Your task to perform on an android device: Search for pizza restaurants on Maps Image 0: 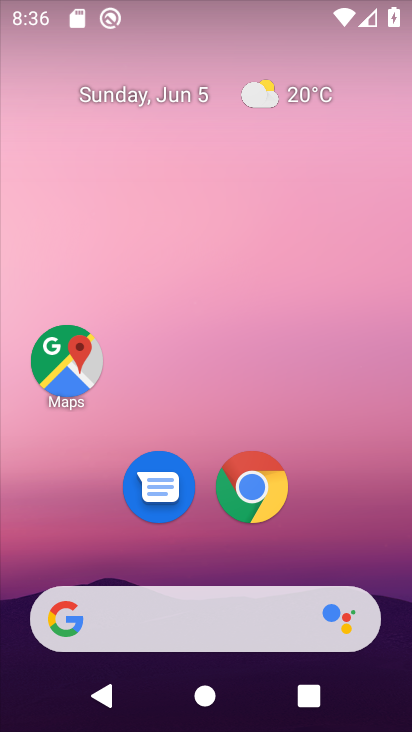
Step 0: drag from (362, 273) to (368, 210)
Your task to perform on an android device: Search for pizza restaurants on Maps Image 1: 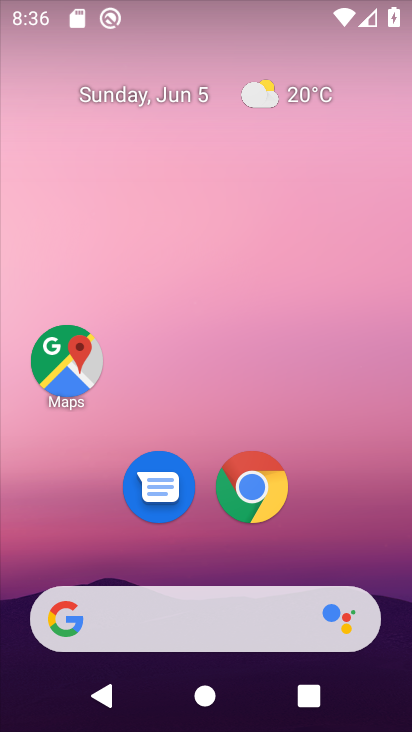
Step 1: click (36, 353)
Your task to perform on an android device: Search for pizza restaurants on Maps Image 2: 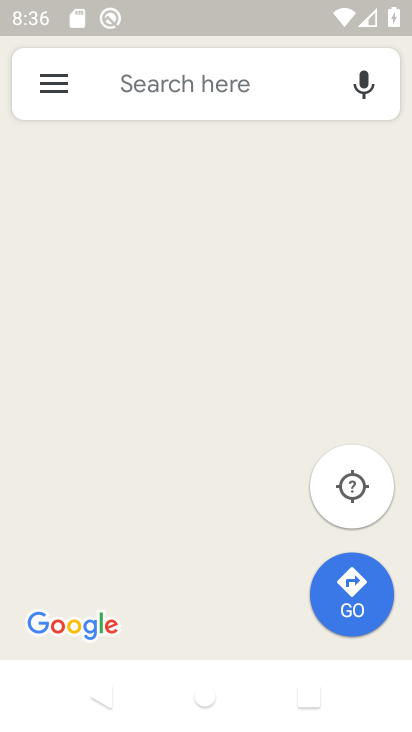
Step 2: click (215, 82)
Your task to perform on an android device: Search for pizza restaurants on Maps Image 3: 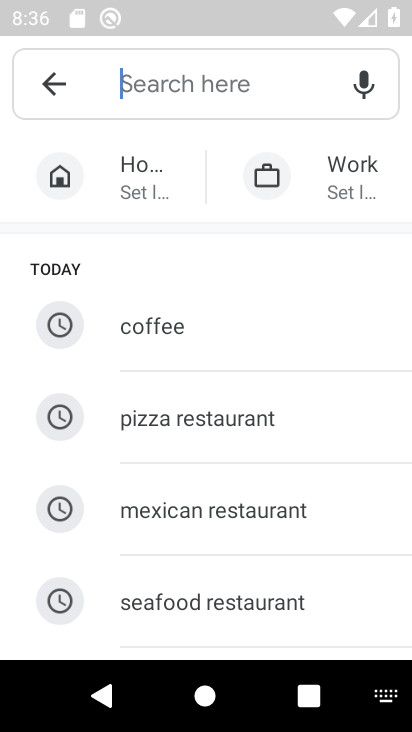
Step 3: click (201, 398)
Your task to perform on an android device: Search for pizza restaurants on Maps Image 4: 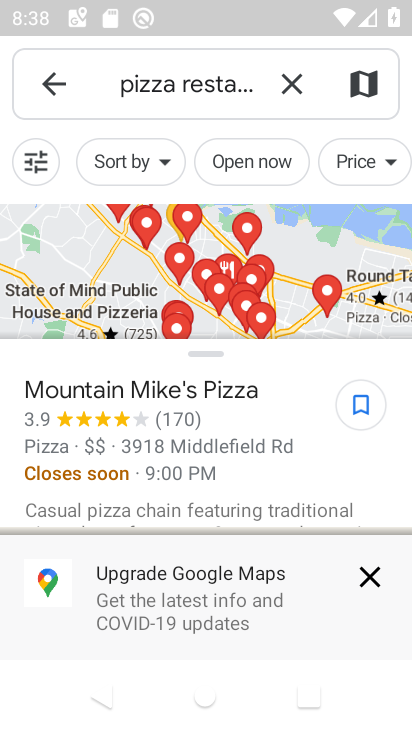
Step 4: task complete